Your task to perform on an android device: Open maps Image 0: 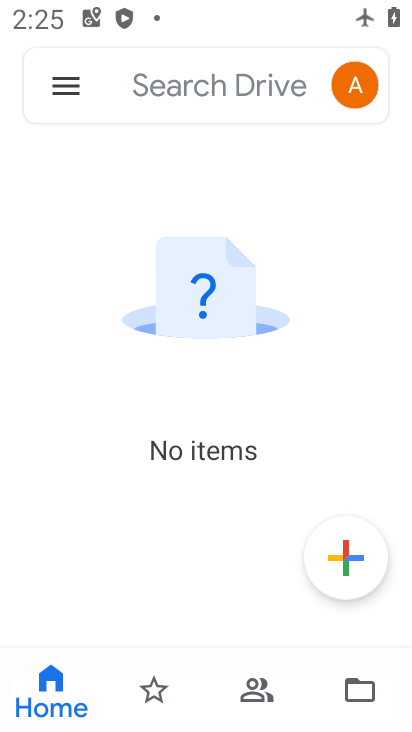
Step 0: press home button
Your task to perform on an android device: Open maps Image 1: 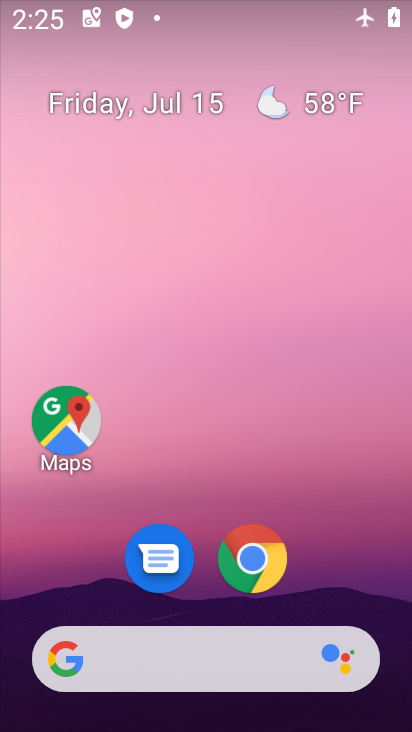
Step 1: drag from (344, 577) to (348, 134)
Your task to perform on an android device: Open maps Image 2: 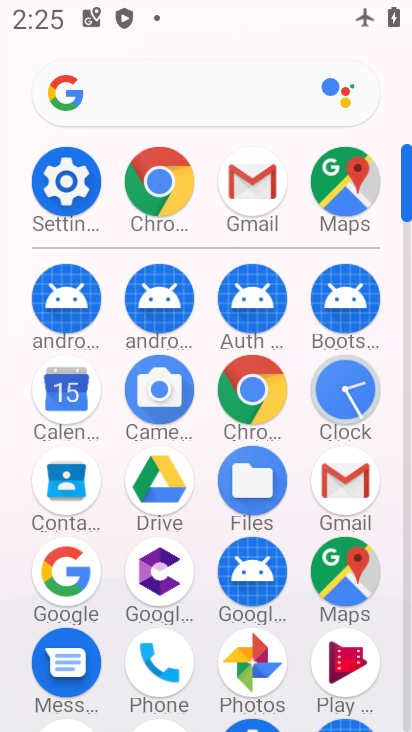
Step 2: click (349, 204)
Your task to perform on an android device: Open maps Image 3: 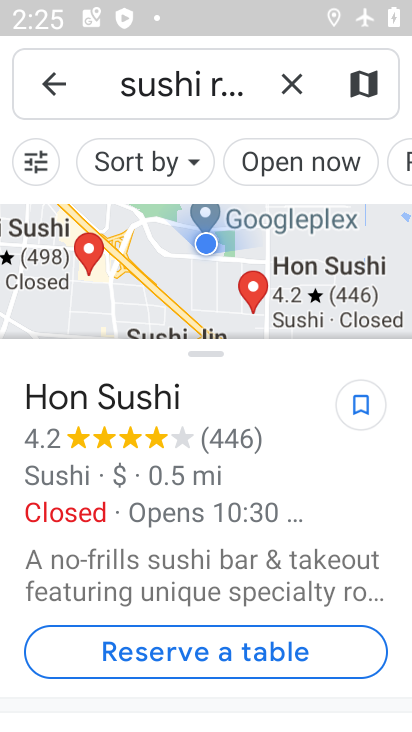
Step 3: task complete